Your task to perform on an android device: toggle pop-ups in chrome Image 0: 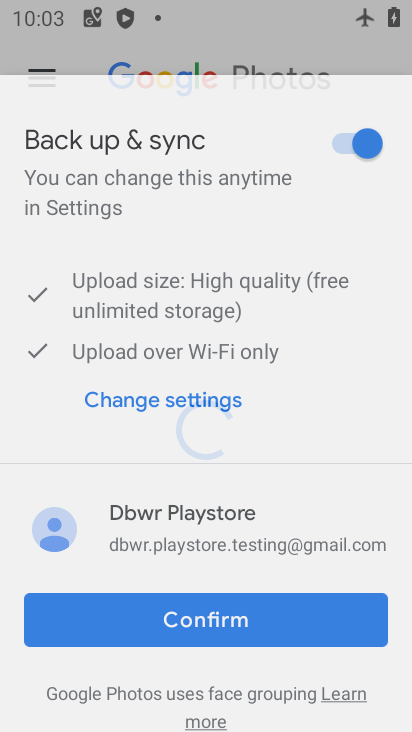
Step 0: press home button
Your task to perform on an android device: toggle pop-ups in chrome Image 1: 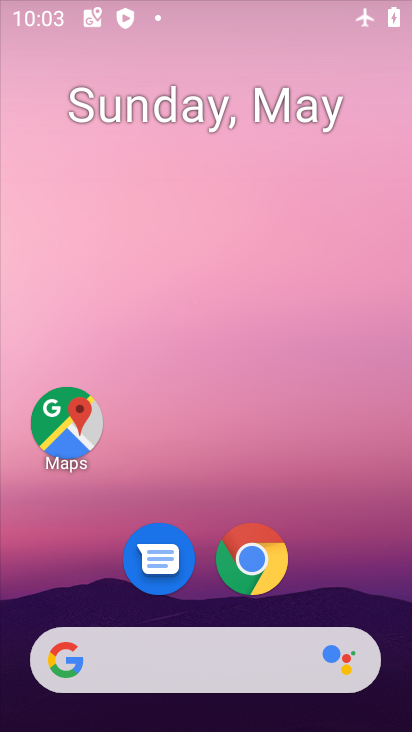
Step 1: click (248, 563)
Your task to perform on an android device: toggle pop-ups in chrome Image 2: 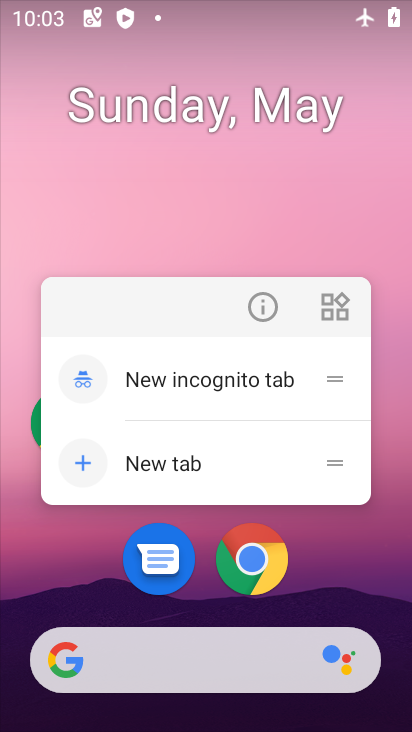
Step 2: click (244, 563)
Your task to perform on an android device: toggle pop-ups in chrome Image 3: 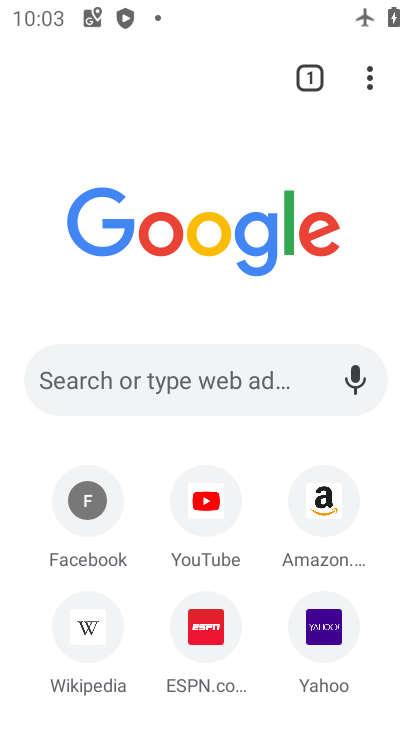
Step 3: click (376, 69)
Your task to perform on an android device: toggle pop-ups in chrome Image 4: 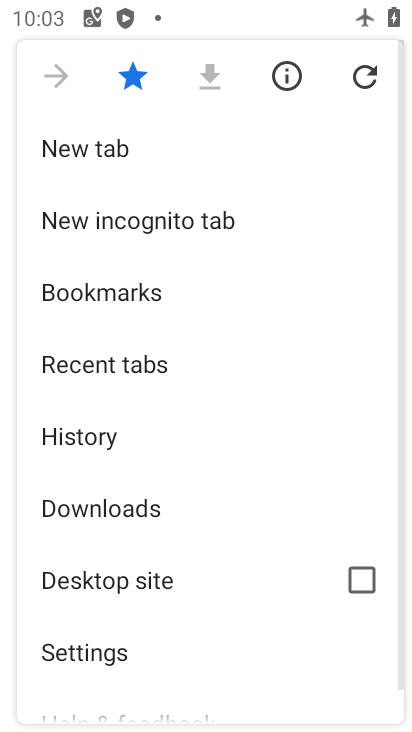
Step 4: click (88, 666)
Your task to perform on an android device: toggle pop-ups in chrome Image 5: 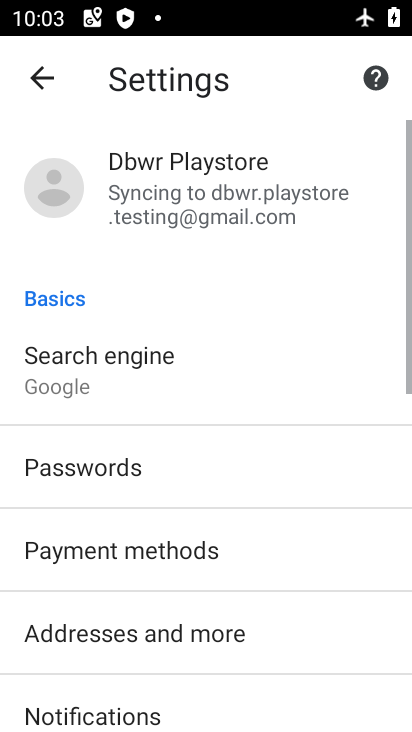
Step 5: drag from (93, 656) to (38, 178)
Your task to perform on an android device: toggle pop-ups in chrome Image 6: 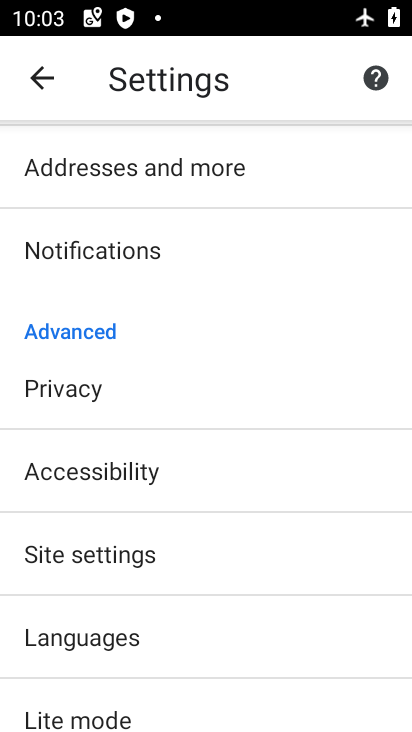
Step 6: click (99, 571)
Your task to perform on an android device: toggle pop-ups in chrome Image 7: 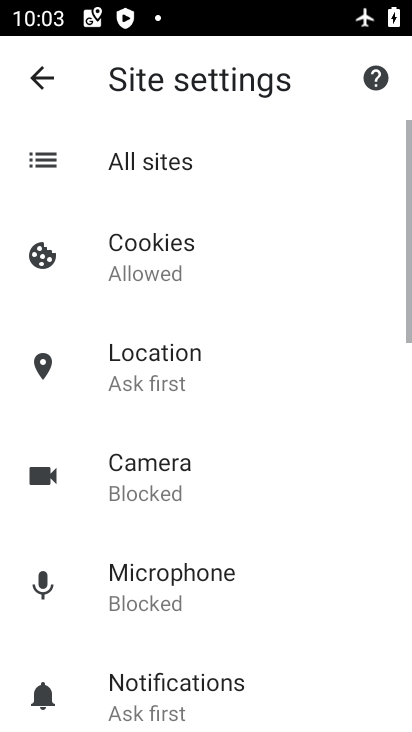
Step 7: drag from (118, 580) to (71, 103)
Your task to perform on an android device: toggle pop-ups in chrome Image 8: 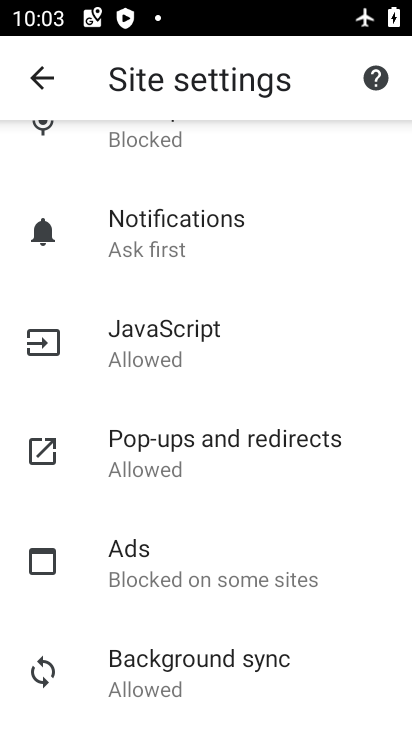
Step 8: click (137, 446)
Your task to perform on an android device: toggle pop-ups in chrome Image 9: 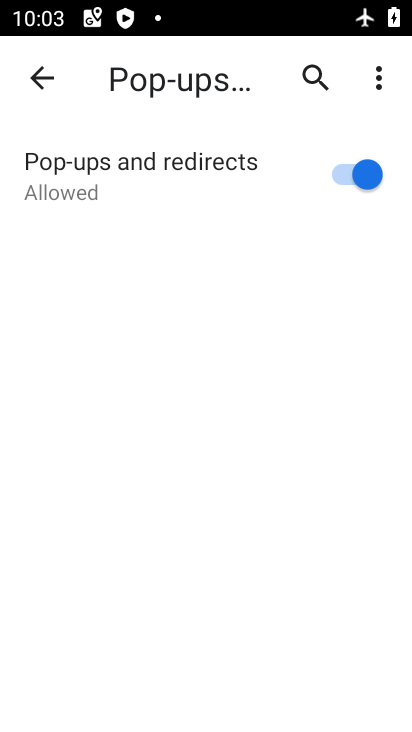
Step 9: click (326, 176)
Your task to perform on an android device: toggle pop-ups in chrome Image 10: 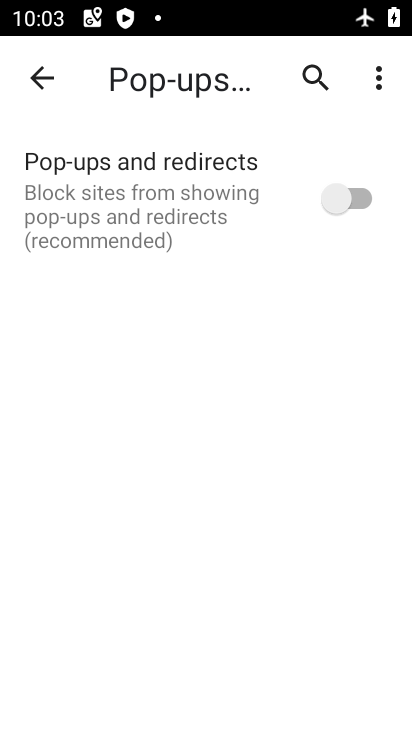
Step 10: task complete